Your task to perform on an android device: Open Google Image 0: 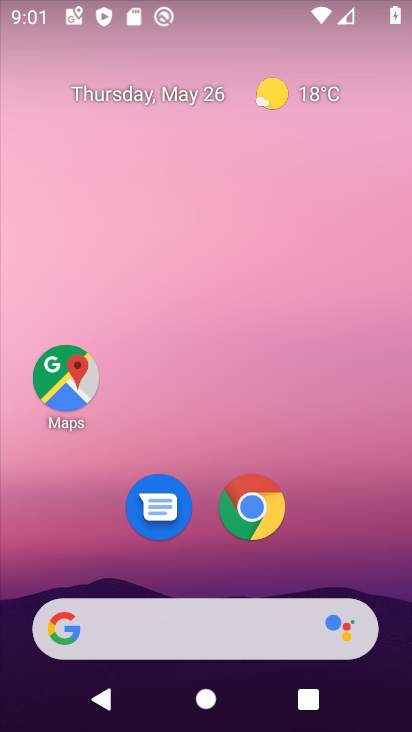
Step 0: press home button
Your task to perform on an android device: Open Google Image 1: 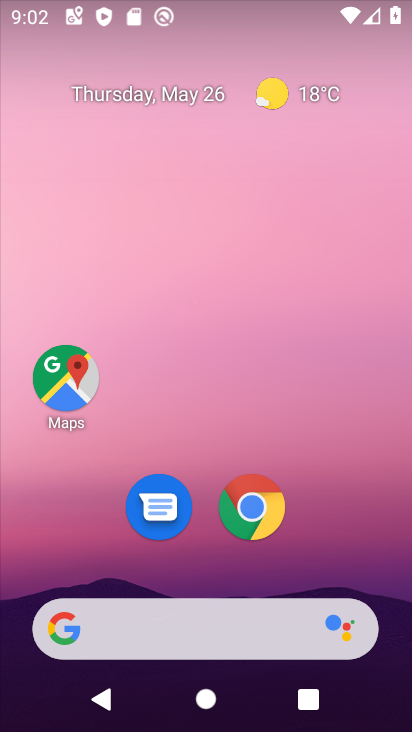
Step 1: drag from (165, 656) to (206, 264)
Your task to perform on an android device: Open Google Image 2: 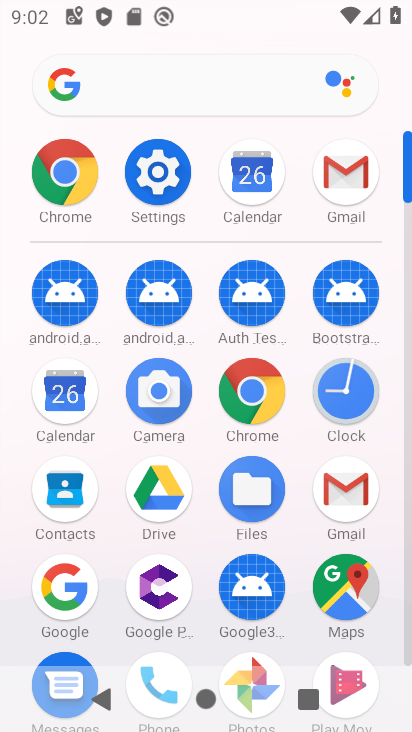
Step 2: click (53, 83)
Your task to perform on an android device: Open Google Image 3: 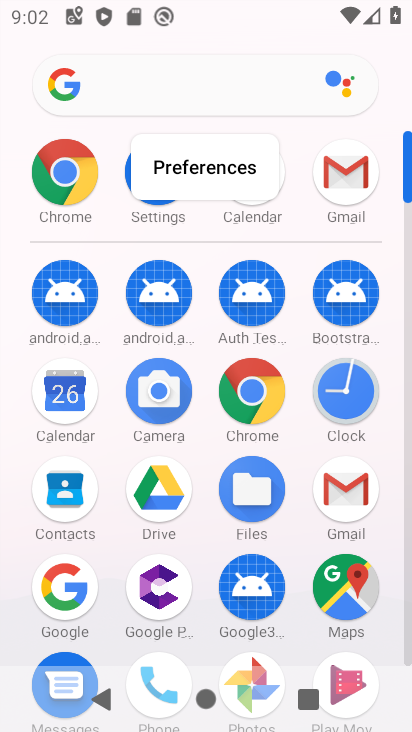
Step 3: click (55, 87)
Your task to perform on an android device: Open Google Image 4: 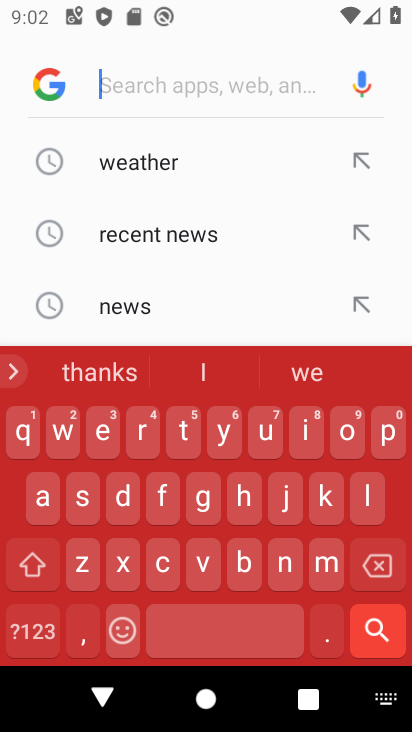
Step 4: click (55, 87)
Your task to perform on an android device: Open Google Image 5: 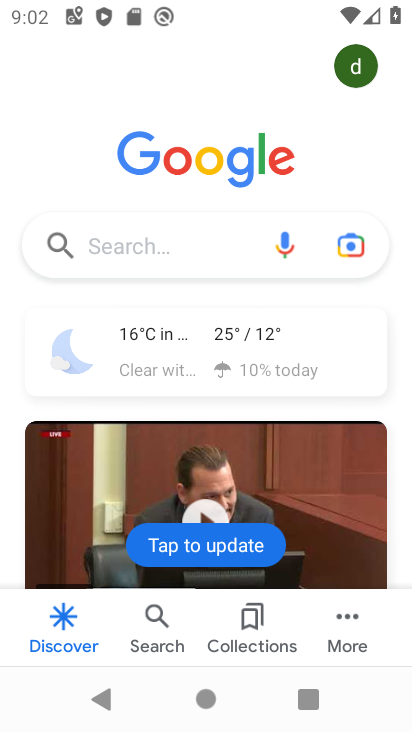
Step 5: task complete